Your task to perform on an android device: allow notifications from all sites in the chrome app Image 0: 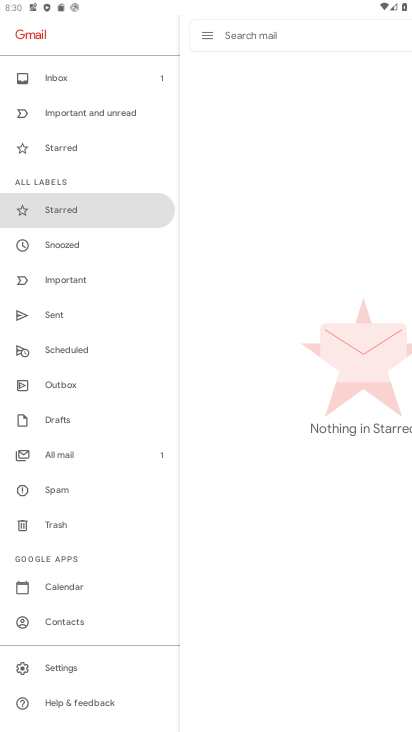
Step 0: press home button
Your task to perform on an android device: allow notifications from all sites in the chrome app Image 1: 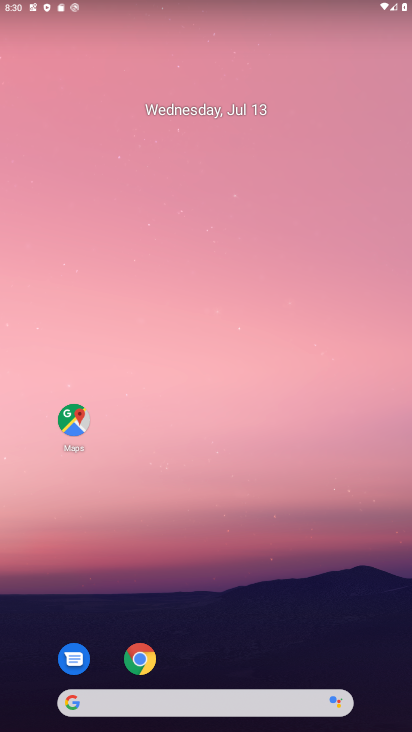
Step 1: drag from (59, 453) to (230, 47)
Your task to perform on an android device: allow notifications from all sites in the chrome app Image 2: 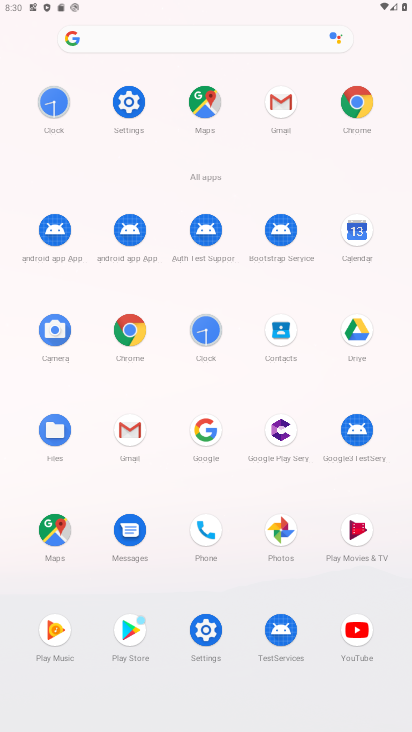
Step 2: click (130, 109)
Your task to perform on an android device: allow notifications from all sites in the chrome app Image 3: 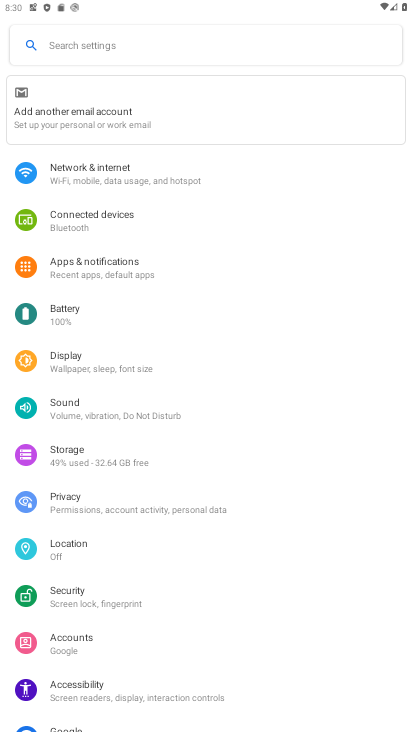
Step 3: press home button
Your task to perform on an android device: allow notifications from all sites in the chrome app Image 4: 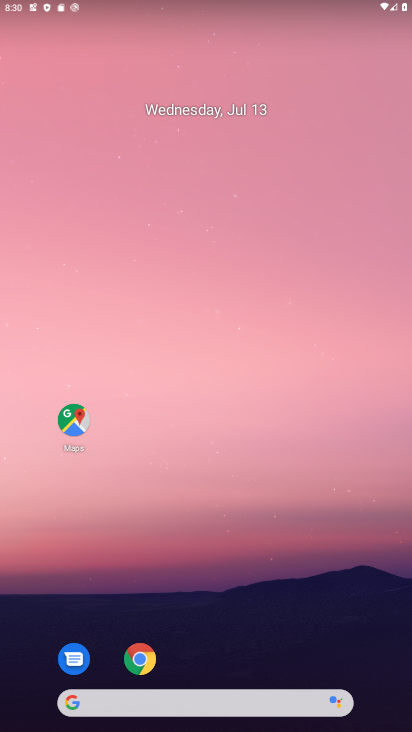
Step 4: click (138, 662)
Your task to perform on an android device: allow notifications from all sites in the chrome app Image 5: 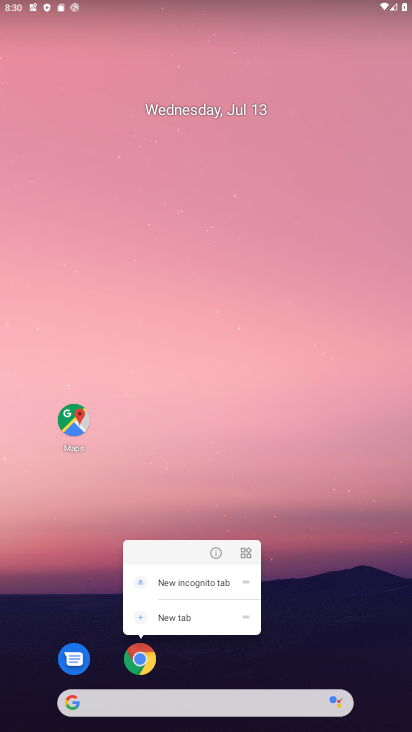
Step 5: click (138, 661)
Your task to perform on an android device: allow notifications from all sites in the chrome app Image 6: 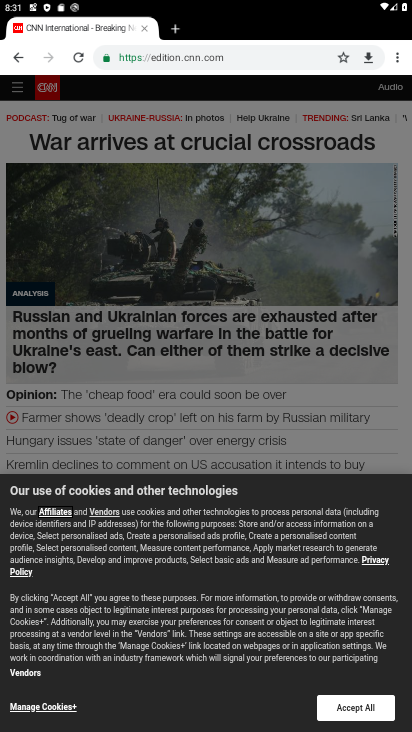
Step 6: click (400, 55)
Your task to perform on an android device: allow notifications from all sites in the chrome app Image 7: 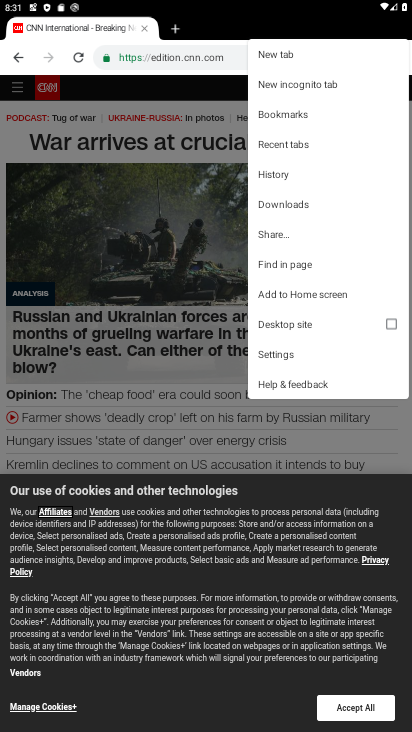
Step 7: click (275, 359)
Your task to perform on an android device: allow notifications from all sites in the chrome app Image 8: 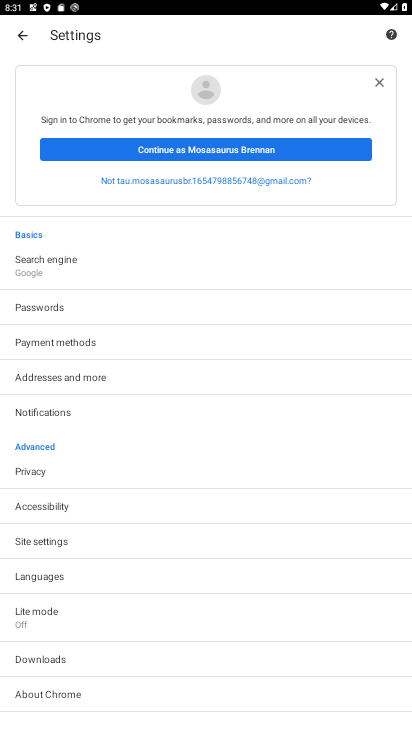
Step 8: click (101, 538)
Your task to perform on an android device: allow notifications from all sites in the chrome app Image 9: 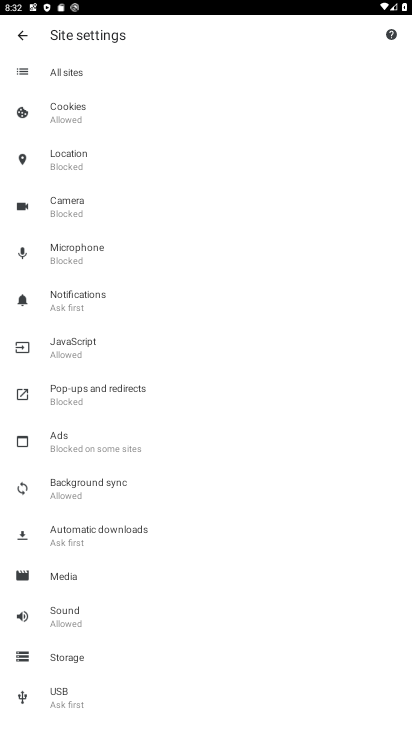
Step 9: click (86, 301)
Your task to perform on an android device: allow notifications from all sites in the chrome app Image 10: 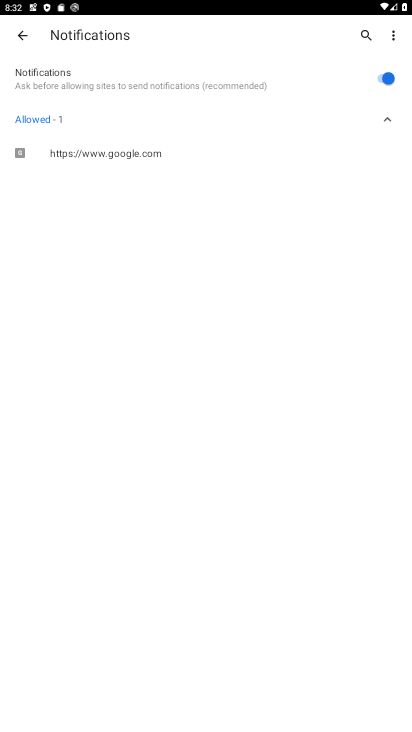
Step 10: task complete